Your task to perform on an android device: Go to eBay Image 0: 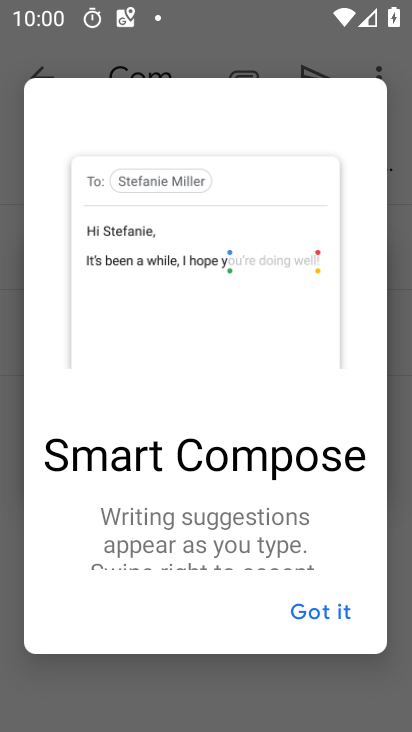
Step 0: press home button
Your task to perform on an android device: Go to eBay Image 1: 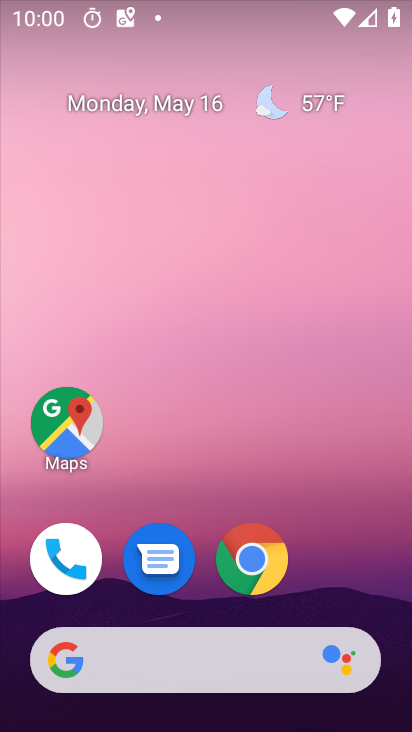
Step 1: click (259, 554)
Your task to perform on an android device: Go to eBay Image 2: 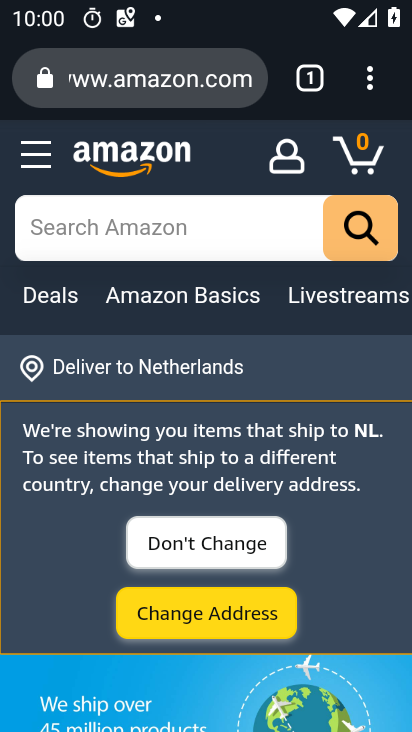
Step 2: click (206, 77)
Your task to perform on an android device: Go to eBay Image 3: 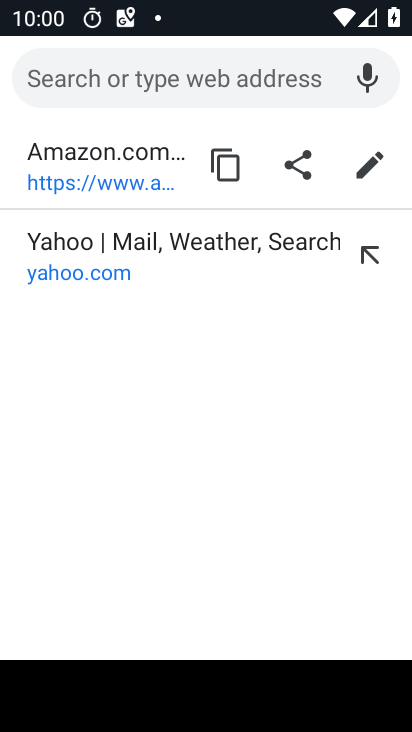
Step 3: type "ebay"
Your task to perform on an android device: Go to eBay Image 4: 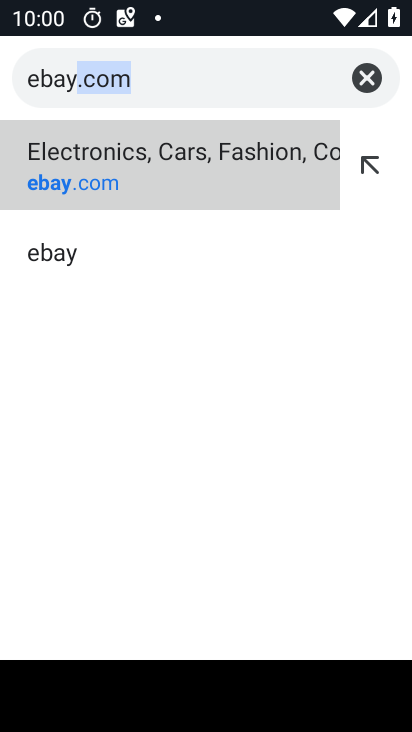
Step 4: click (79, 181)
Your task to perform on an android device: Go to eBay Image 5: 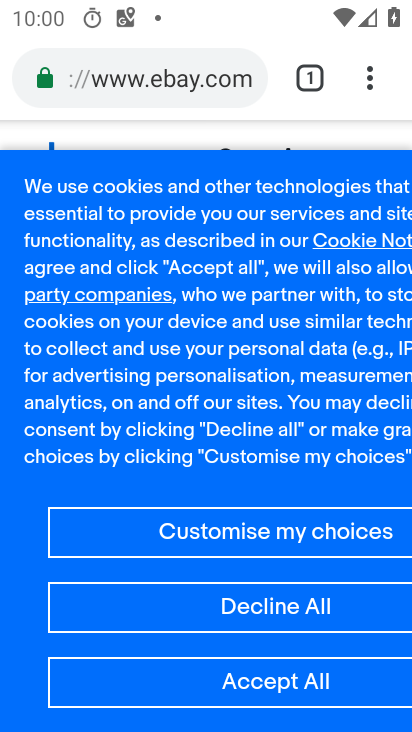
Step 5: task complete